Your task to perform on an android device: What's the weather going to be this weekend? Image 0: 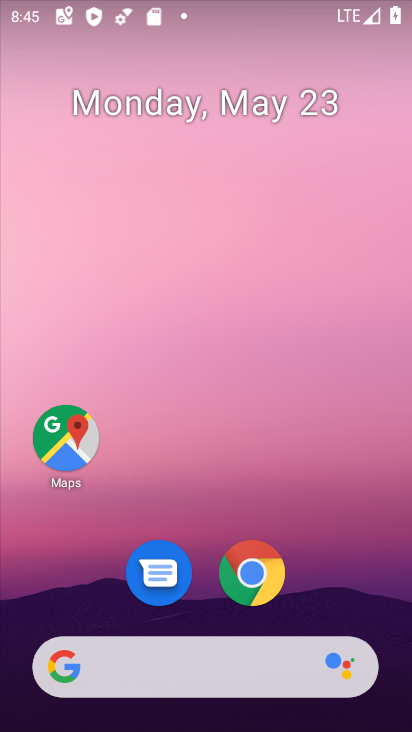
Step 0: click (213, 675)
Your task to perform on an android device: What's the weather going to be this weekend? Image 1: 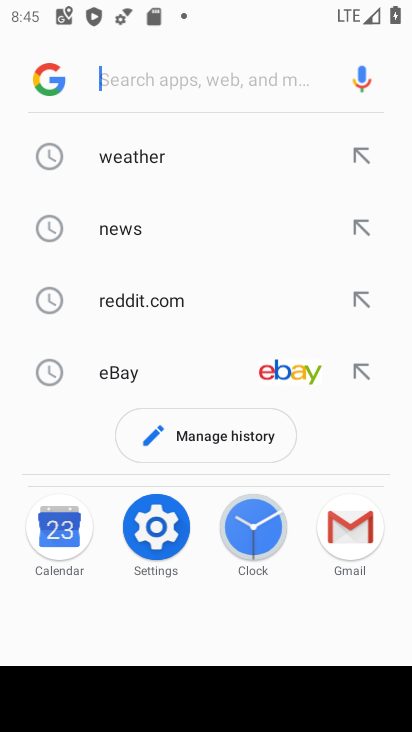
Step 1: click (157, 151)
Your task to perform on an android device: What's the weather going to be this weekend? Image 2: 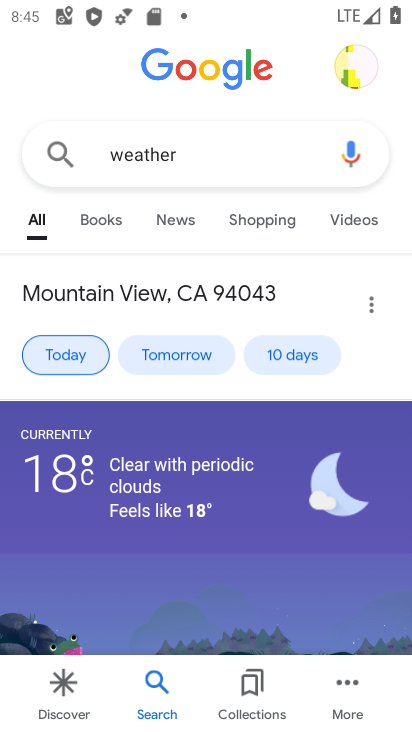
Step 2: click (65, 341)
Your task to perform on an android device: What's the weather going to be this weekend? Image 3: 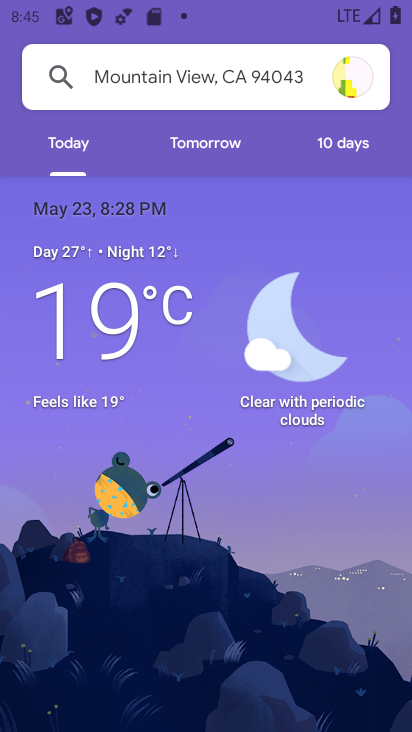
Step 3: click (362, 145)
Your task to perform on an android device: What's the weather going to be this weekend? Image 4: 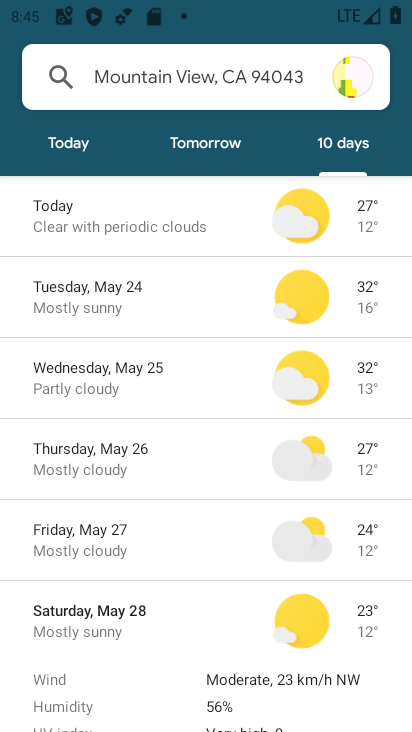
Step 4: task complete